Your task to perform on an android device: Open wifi settings Image 0: 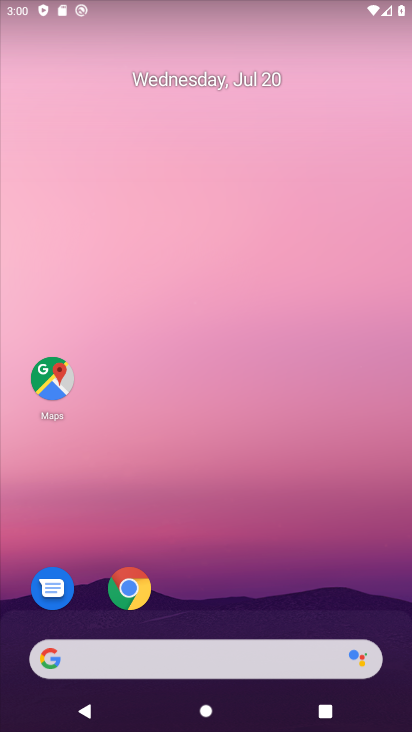
Step 0: drag from (97, 7) to (197, 630)
Your task to perform on an android device: Open wifi settings Image 1: 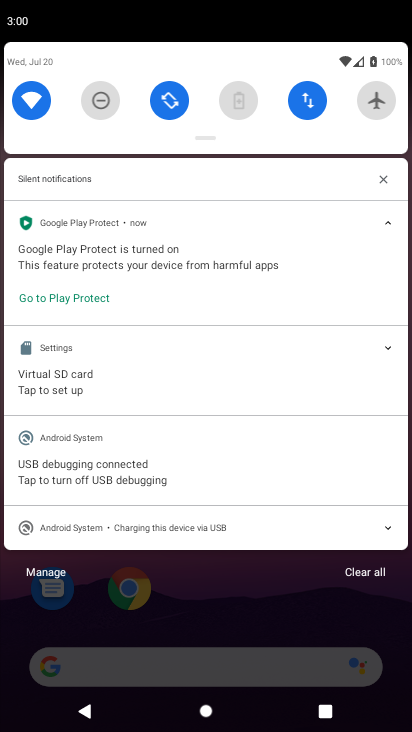
Step 1: click (23, 100)
Your task to perform on an android device: Open wifi settings Image 2: 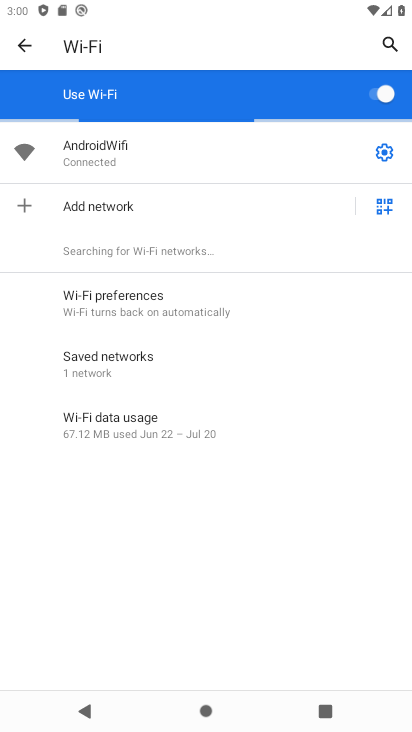
Step 2: task complete